Your task to perform on an android device: Empty the shopping cart on ebay. Image 0: 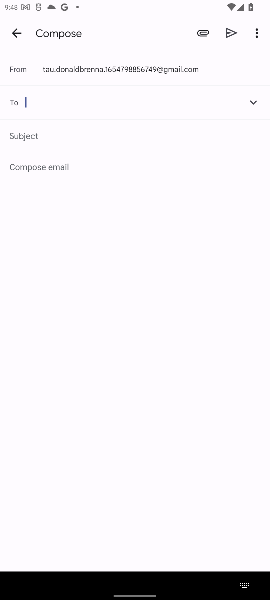
Step 0: press home button
Your task to perform on an android device: Empty the shopping cart on ebay. Image 1: 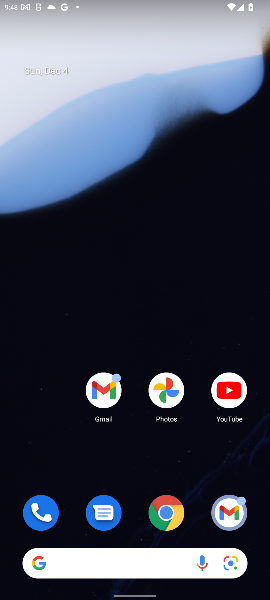
Step 1: click (161, 517)
Your task to perform on an android device: Empty the shopping cart on ebay. Image 2: 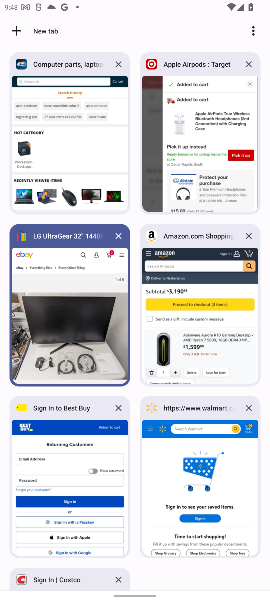
Step 2: click (74, 300)
Your task to perform on an android device: Empty the shopping cart on ebay. Image 3: 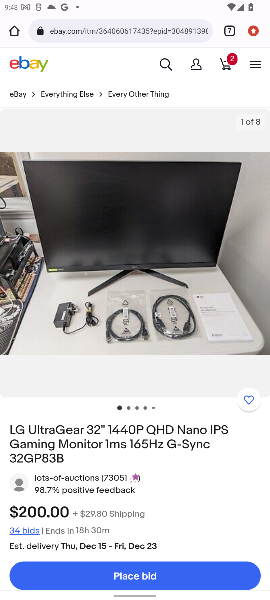
Step 3: click (225, 68)
Your task to perform on an android device: Empty the shopping cart on ebay. Image 4: 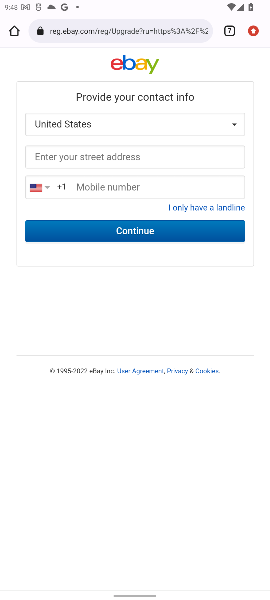
Step 4: task complete